Your task to perform on an android device: Open Android settings Image 0: 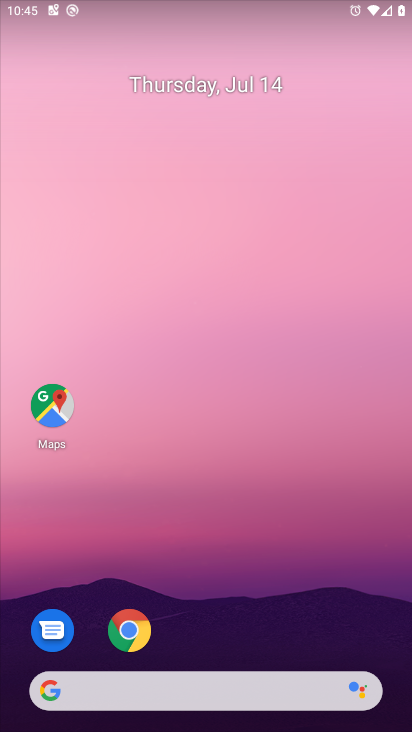
Step 0: drag from (23, 709) to (231, 19)
Your task to perform on an android device: Open Android settings Image 1: 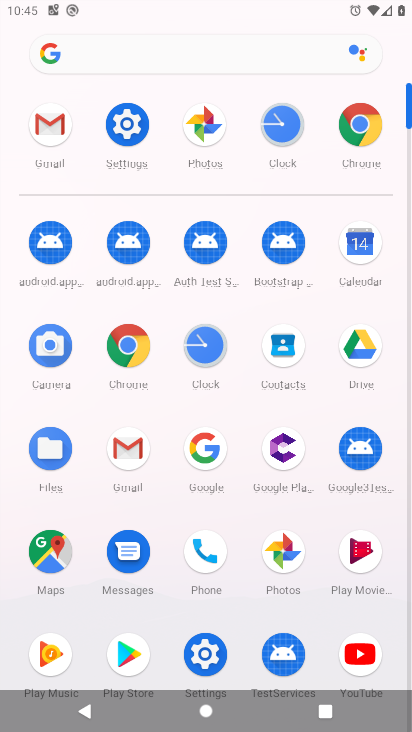
Step 1: click (207, 648)
Your task to perform on an android device: Open Android settings Image 2: 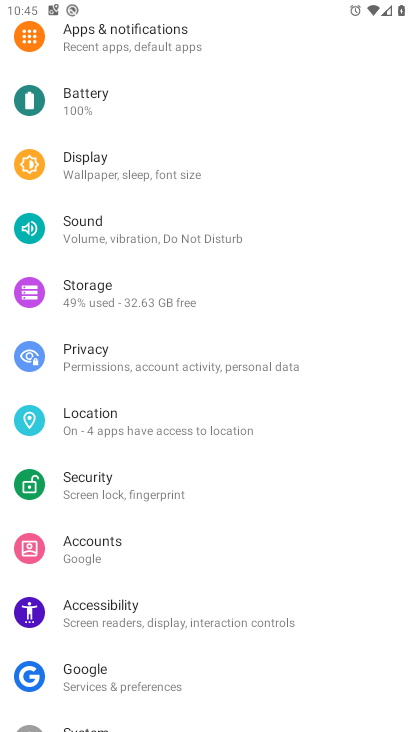
Step 2: drag from (278, 690) to (344, 134)
Your task to perform on an android device: Open Android settings Image 3: 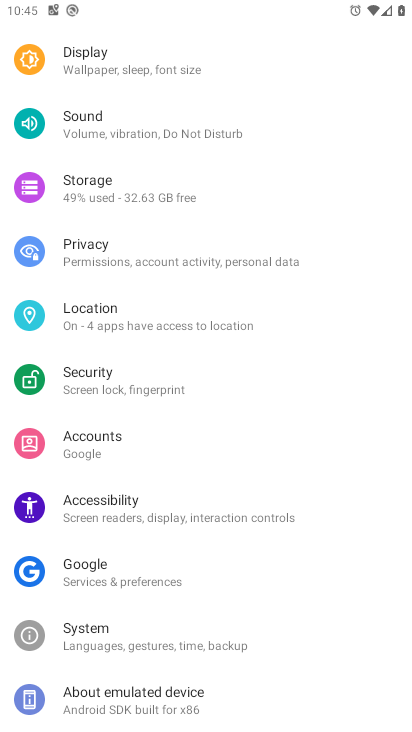
Step 3: click (104, 700)
Your task to perform on an android device: Open Android settings Image 4: 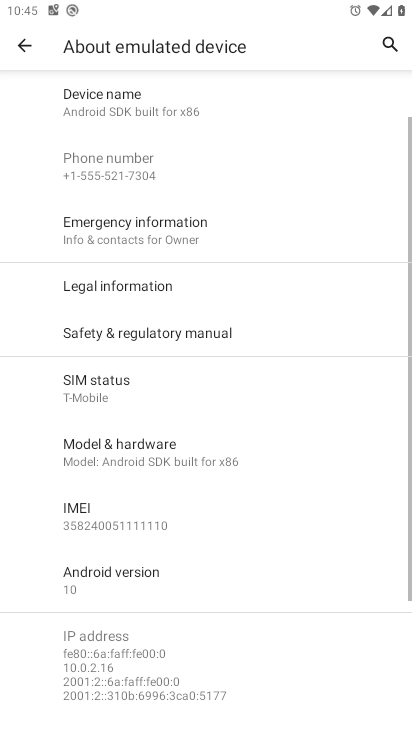
Step 4: click (144, 581)
Your task to perform on an android device: Open Android settings Image 5: 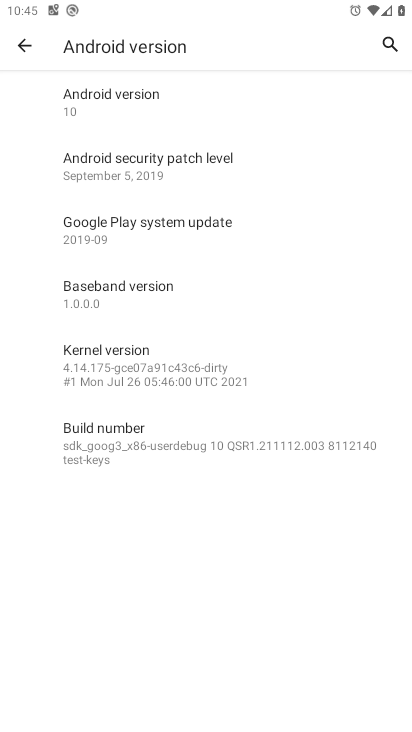
Step 5: task complete